Your task to perform on an android device: open a bookmark in the chrome app Image 0: 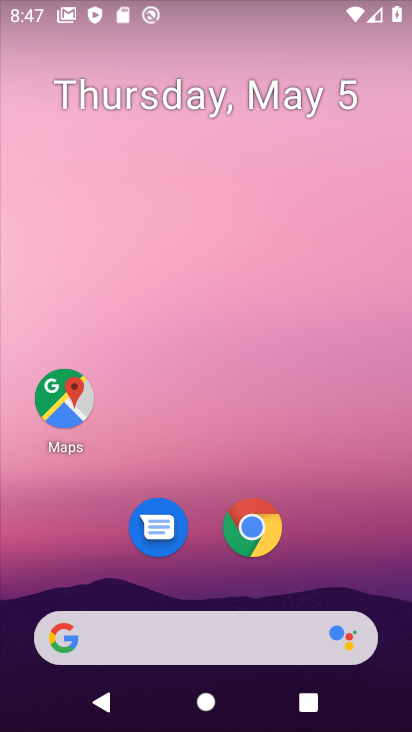
Step 0: click (259, 536)
Your task to perform on an android device: open a bookmark in the chrome app Image 1: 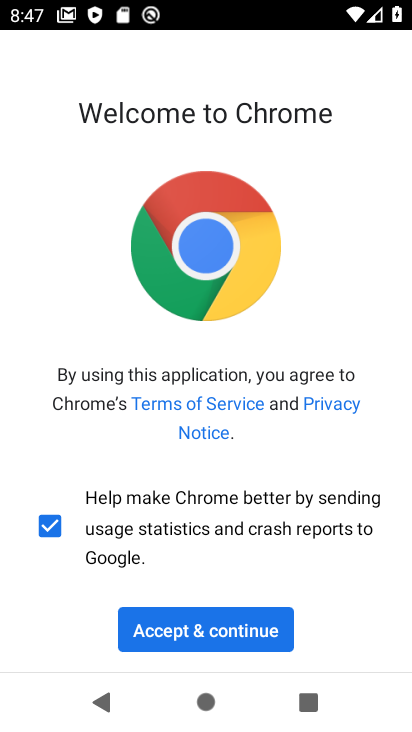
Step 1: click (263, 623)
Your task to perform on an android device: open a bookmark in the chrome app Image 2: 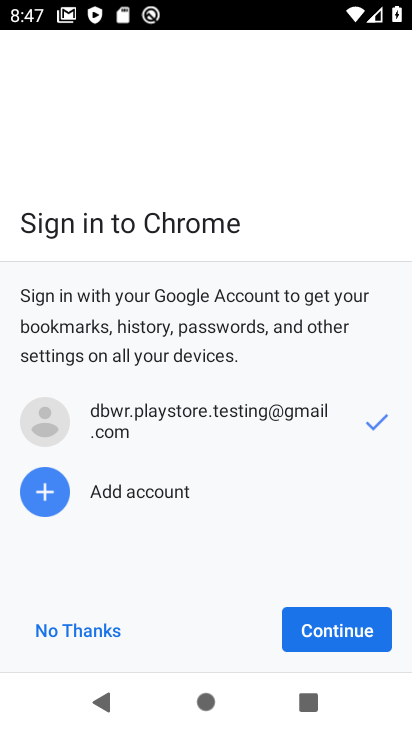
Step 2: click (363, 628)
Your task to perform on an android device: open a bookmark in the chrome app Image 3: 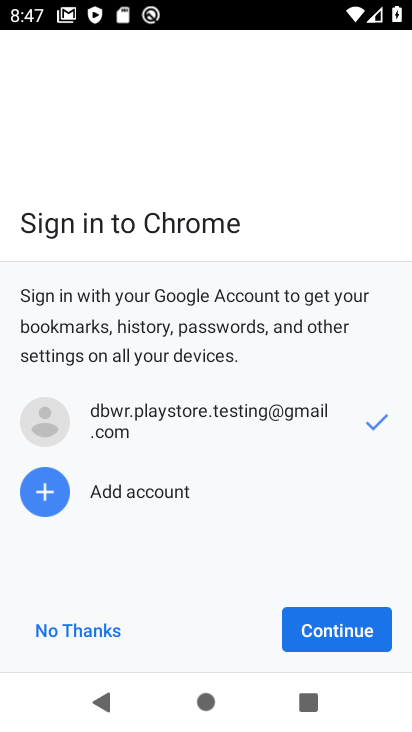
Step 3: click (363, 628)
Your task to perform on an android device: open a bookmark in the chrome app Image 4: 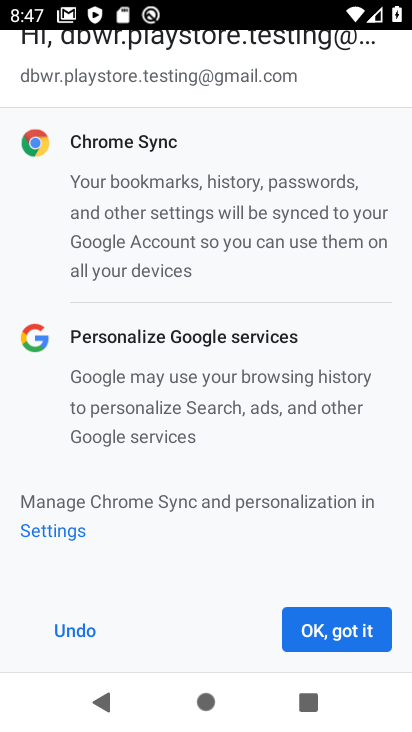
Step 4: click (375, 626)
Your task to perform on an android device: open a bookmark in the chrome app Image 5: 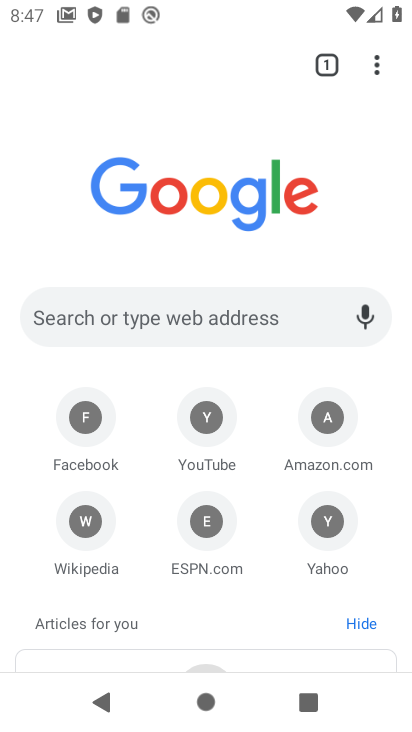
Step 5: task complete